Your task to perform on an android device: open app "WhatsApp Messenger" (install if not already installed), go to login, and select forgot password Image 0: 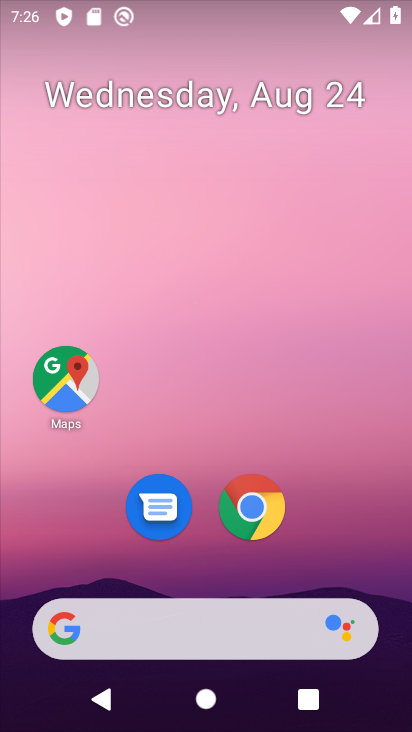
Step 0: press home button
Your task to perform on an android device: open app "WhatsApp Messenger" (install if not already installed), go to login, and select forgot password Image 1: 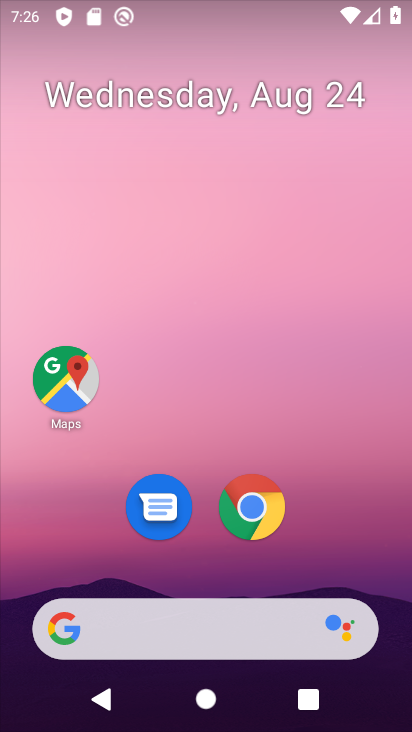
Step 1: drag from (379, 570) to (380, 90)
Your task to perform on an android device: open app "WhatsApp Messenger" (install if not already installed), go to login, and select forgot password Image 2: 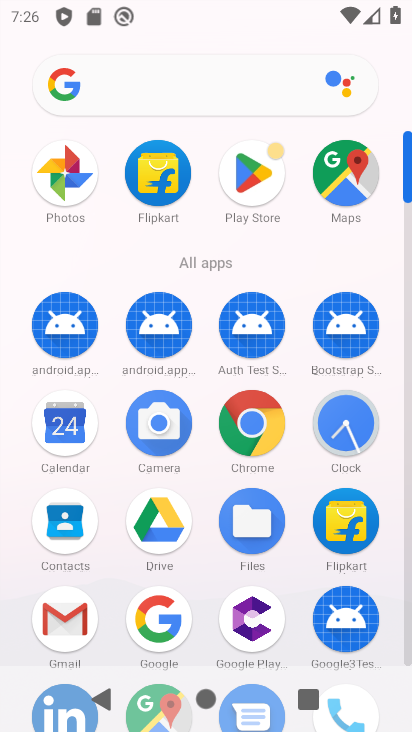
Step 2: click (255, 186)
Your task to perform on an android device: open app "WhatsApp Messenger" (install if not already installed), go to login, and select forgot password Image 3: 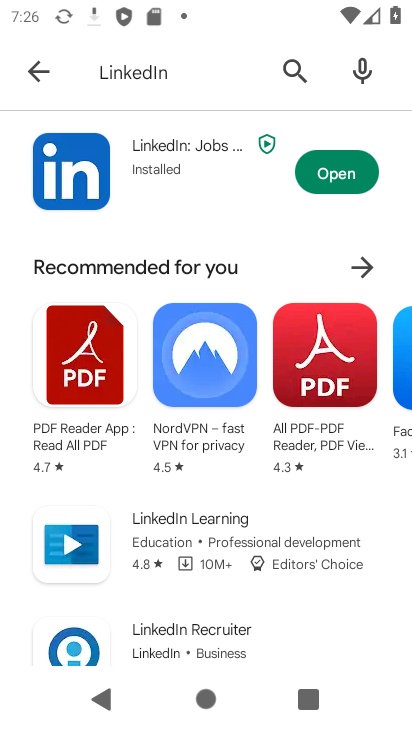
Step 3: press back button
Your task to perform on an android device: open app "WhatsApp Messenger" (install if not already installed), go to login, and select forgot password Image 4: 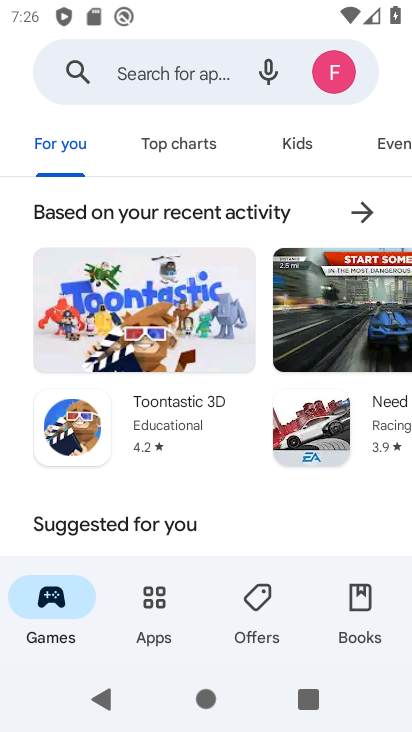
Step 4: click (158, 69)
Your task to perform on an android device: open app "WhatsApp Messenger" (install if not already installed), go to login, and select forgot password Image 5: 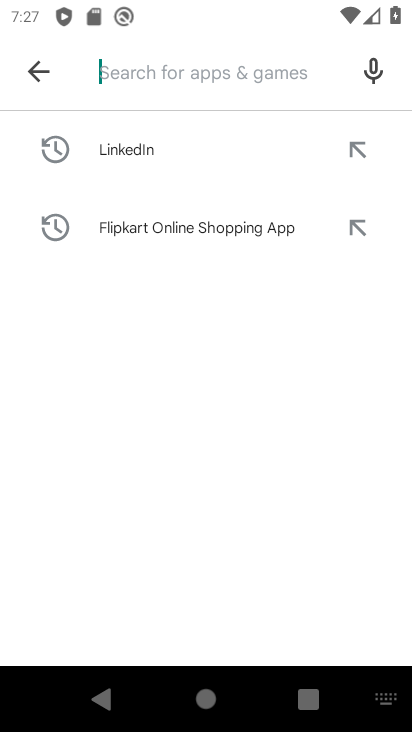
Step 5: type "WhatsApp Messenger"
Your task to perform on an android device: open app "WhatsApp Messenger" (install if not already installed), go to login, and select forgot password Image 6: 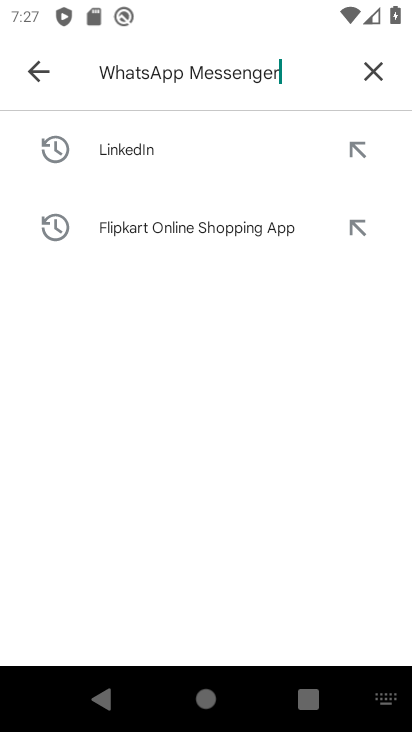
Step 6: press enter
Your task to perform on an android device: open app "WhatsApp Messenger" (install if not already installed), go to login, and select forgot password Image 7: 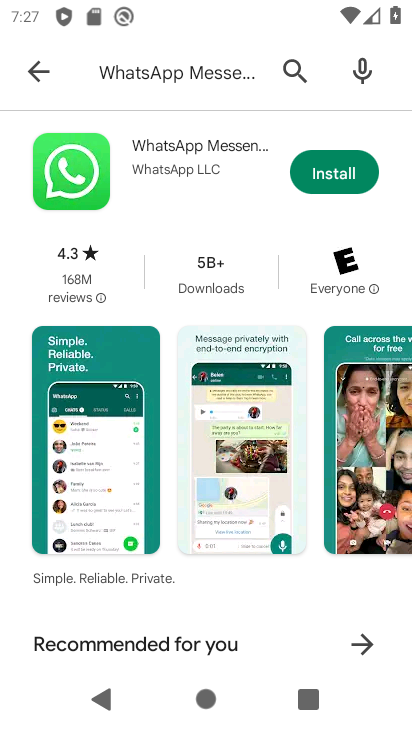
Step 7: click (340, 172)
Your task to perform on an android device: open app "WhatsApp Messenger" (install if not already installed), go to login, and select forgot password Image 8: 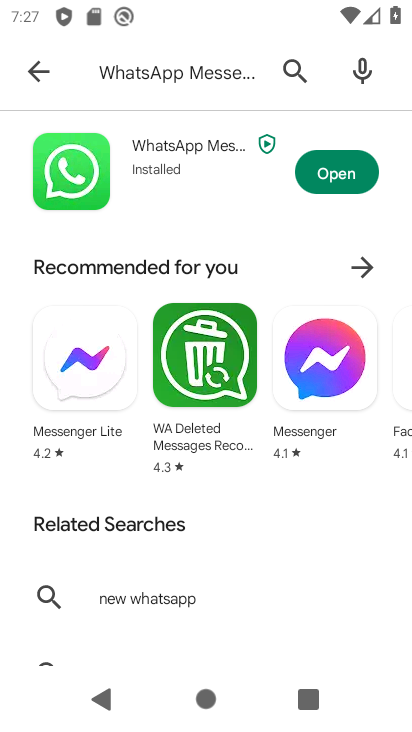
Step 8: click (336, 179)
Your task to perform on an android device: open app "WhatsApp Messenger" (install if not already installed), go to login, and select forgot password Image 9: 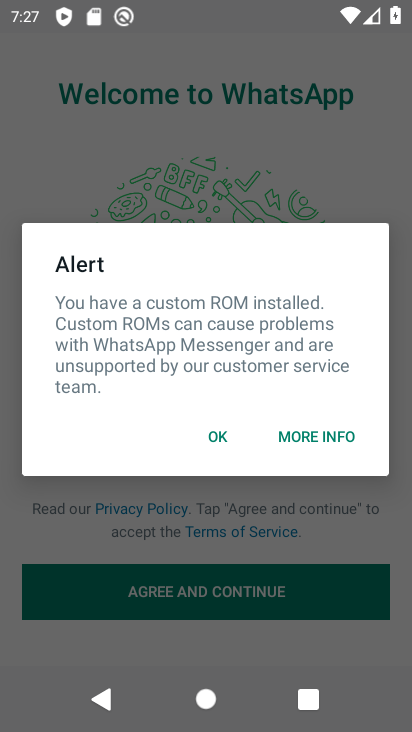
Step 9: click (217, 435)
Your task to perform on an android device: open app "WhatsApp Messenger" (install if not already installed), go to login, and select forgot password Image 10: 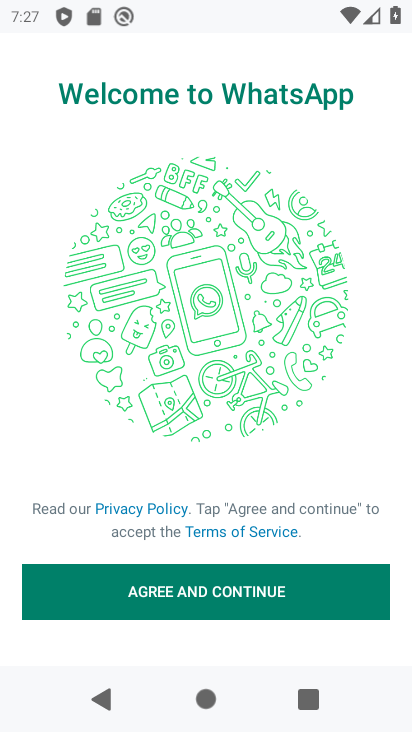
Step 10: click (275, 604)
Your task to perform on an android device: open app "WhatsApp Messenger" (install if not already installed), go to login, and select forgot password Image 11: 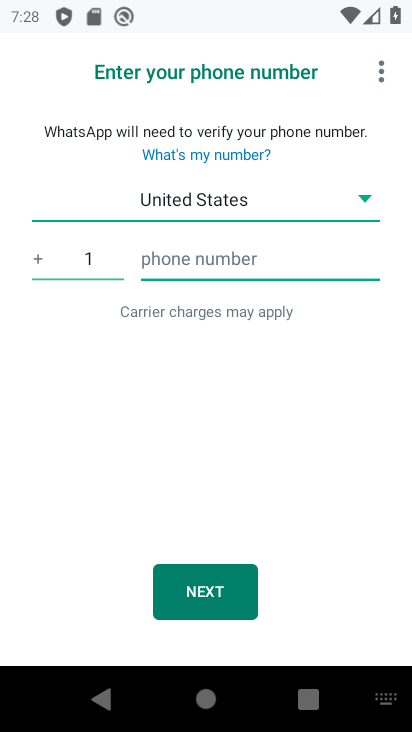
Step 11: task complete